Your task to perform on an android device: toggle wifi Image 0: 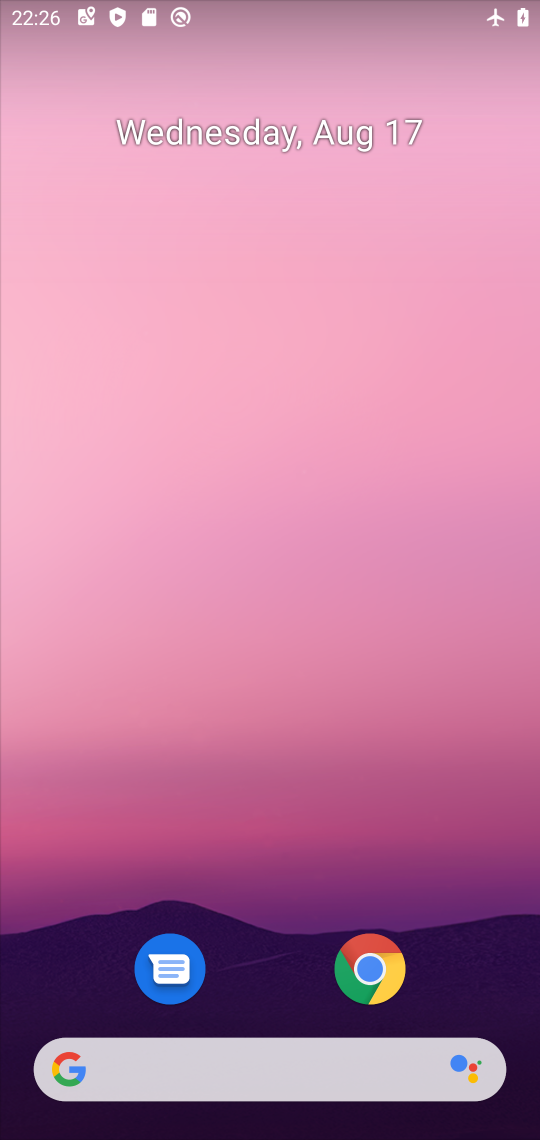
Step 0: drag from (242, 959) to (261, 12)
Your task to perform on an android device: toggle wifi Image 1: 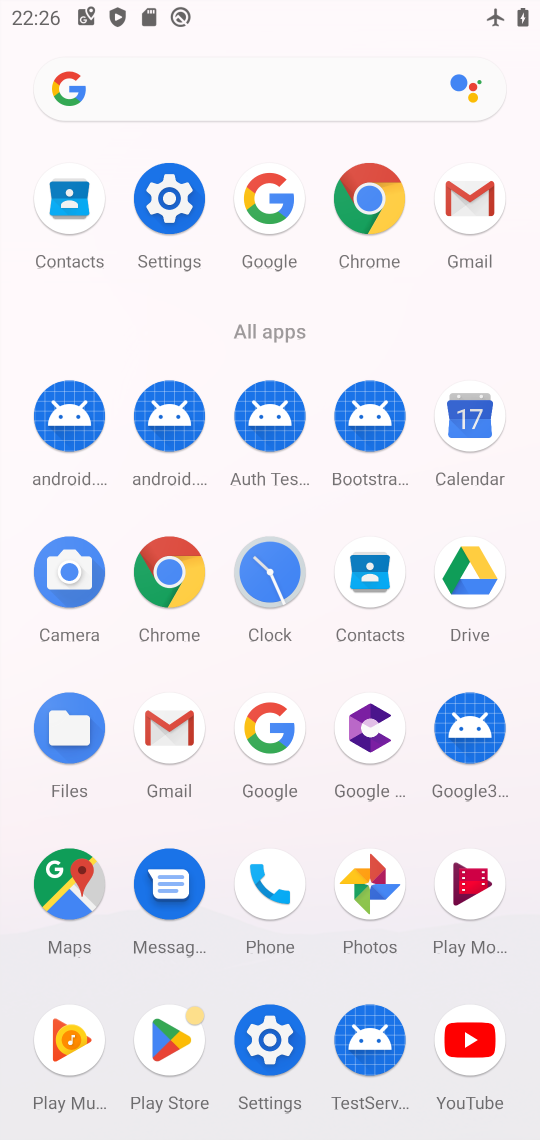
Step 1: click (169, 202)
Your task to perform on an android device: toggle wifi Image 2: 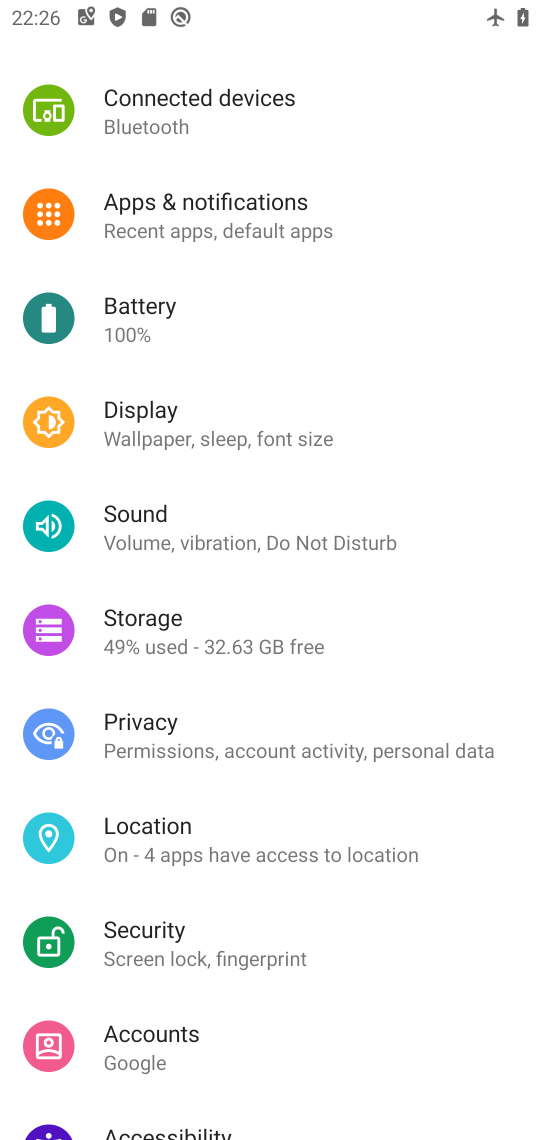
Step 2: drag from (261, 250) to (273, 867)
Your task to perform on an android device: toggle wifi Image 3: 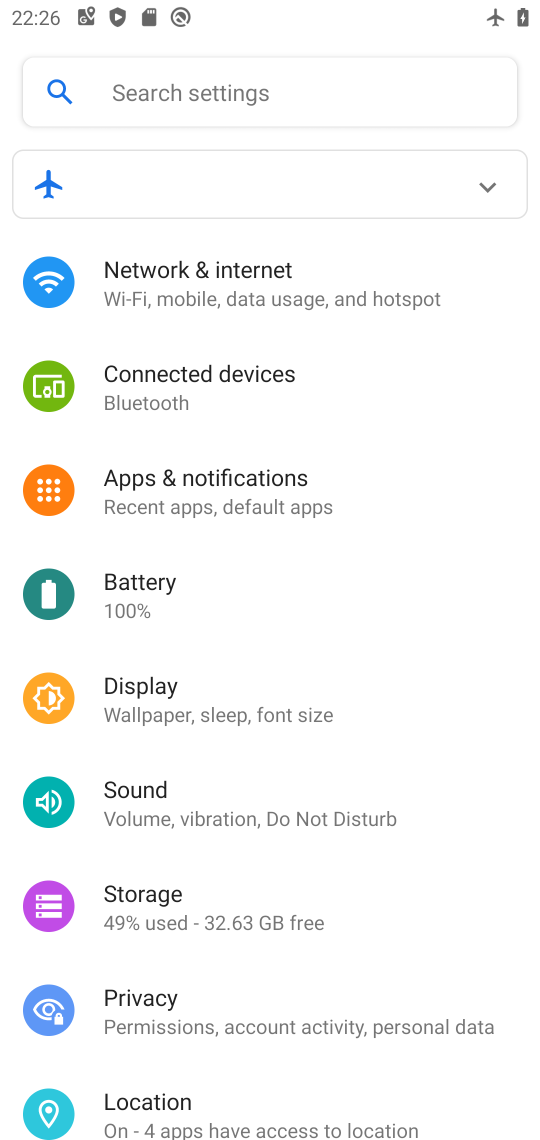
Step 3: click (176, 273)
Your task to perform on an android device: toggle wifi Image 4: 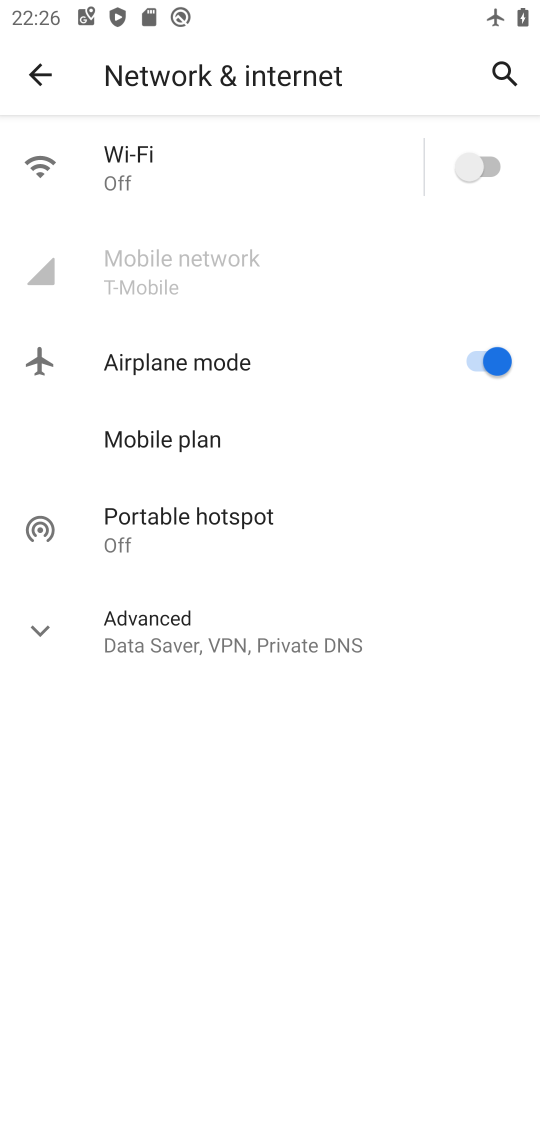
Step 4: click (461, 163)
Your task to perform on an android device: toggle wifi Image 5: 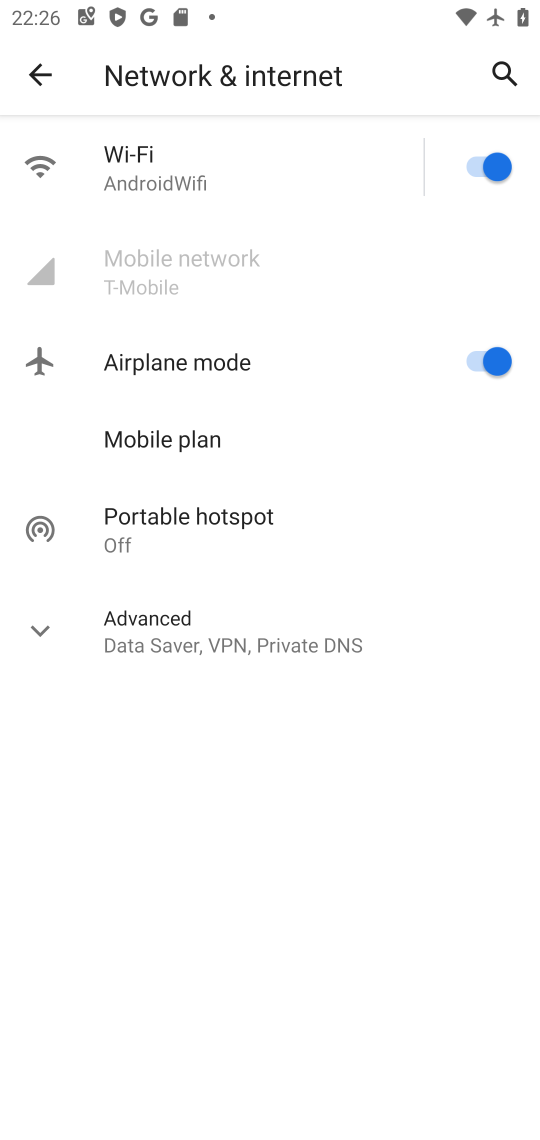
Step 5: task complete